Your task to perform on an android device: turn on sleep mode Image 0: 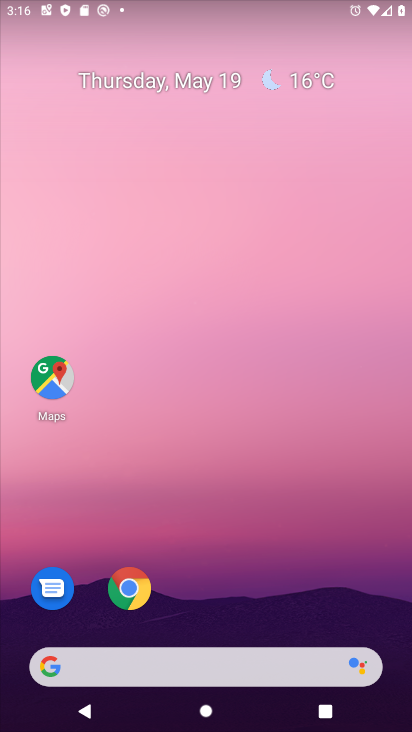
Step 0: drag from (255, 569) to (266, 172)
Your task to perform on an android device: turn on sleep mode Image 1: 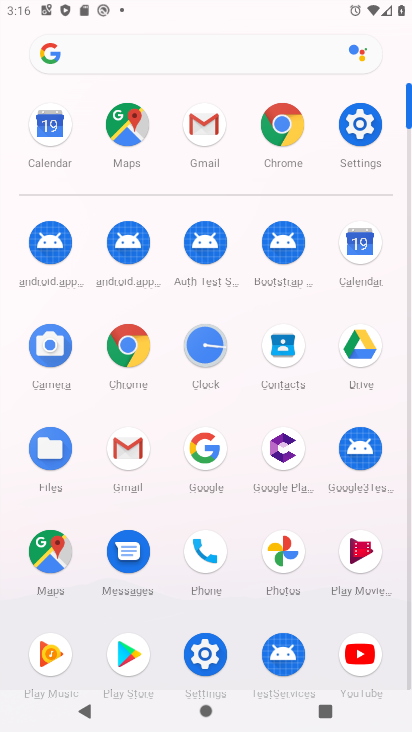
Step 1: click (353, 111)
Your task to perform on an android device: turn on sleep mode Image 2: 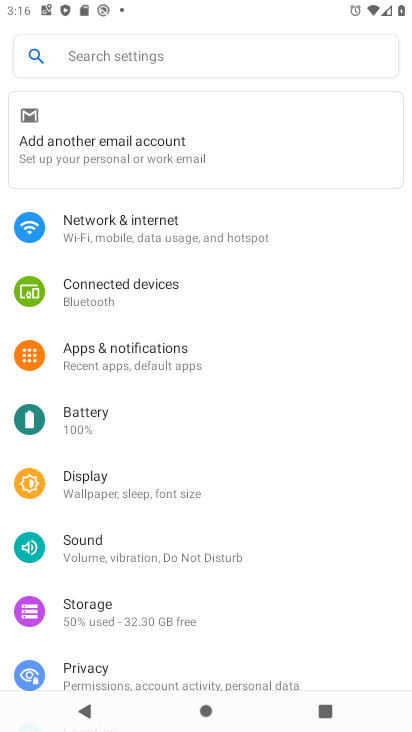
Step 2: drag from (149, 582) to (252, 239)
Your task to perform on an android device: turn on sleep mode Image 3: 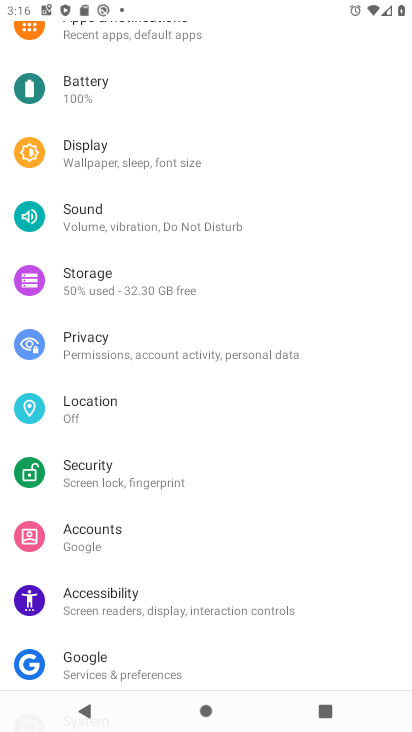
Step 3: click (126, 148)
Your task to perform on an android device: turn on sleep mode Image 4: 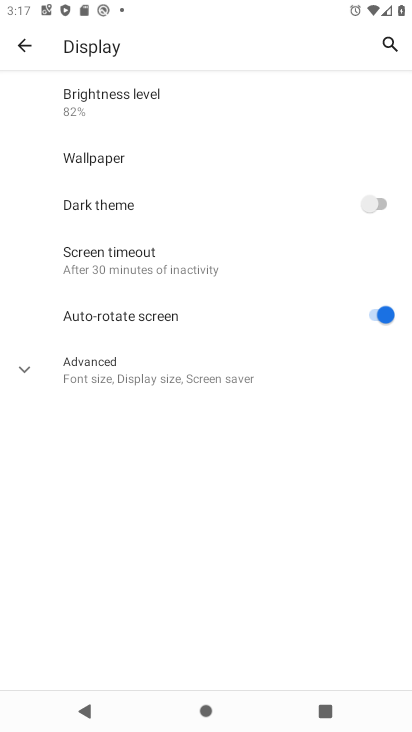
Step 4: click (223, 276)
Your task to perform on an android device: turn on sleep mode Image 5: 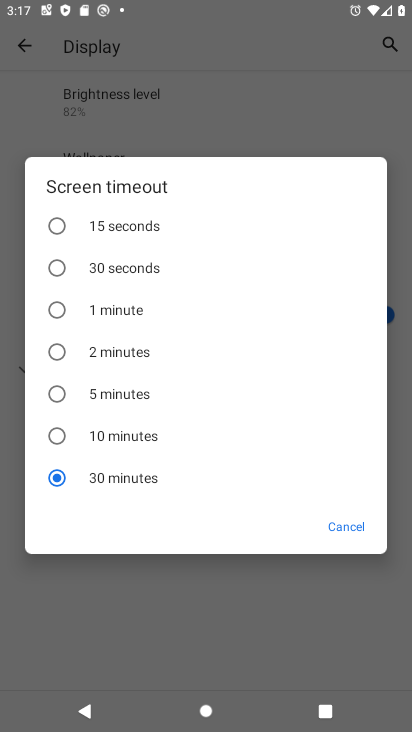
Step 5: task complete